Your task to perform on an android device: Turn on the flashlight Image 0: 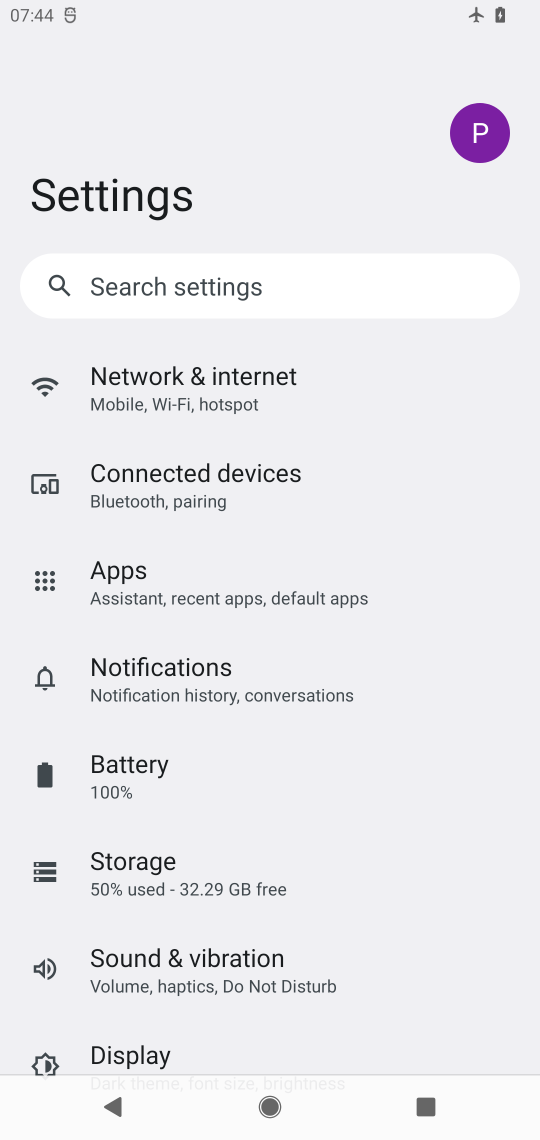
Step 0: press home button
Your task to perform on an android device: Turn on the flashlight Image 1: 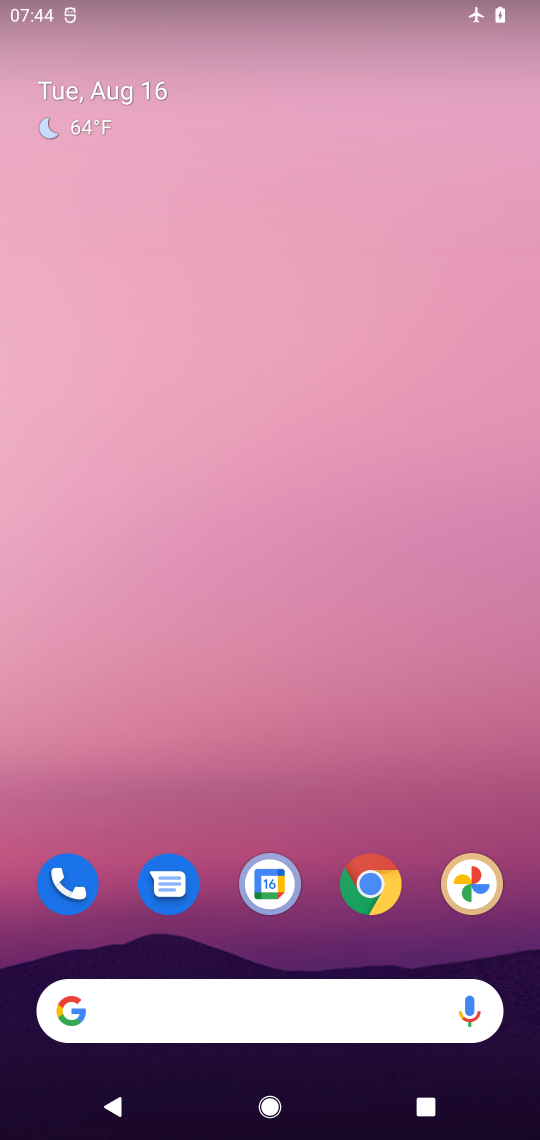
Step 1: drag from (300, 0) to (304, 422)
Your task to perform on an android device: Turn on the flashlight Image 2: 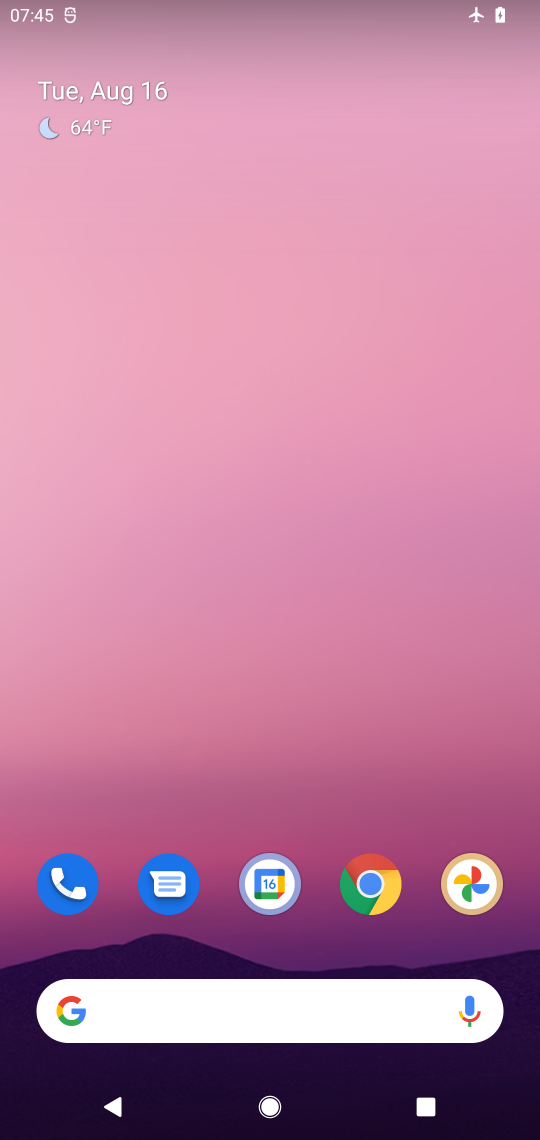
Step 2: drag from (279, 9) to (277, 447)
Your task to perform on an android device: Turn on the flashlight Image 3: 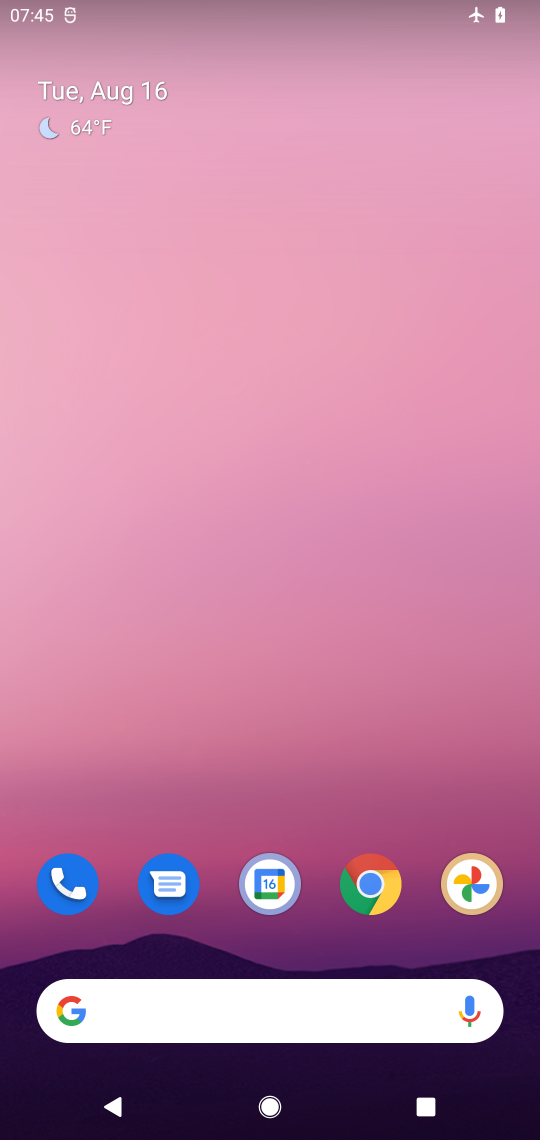
Step 3: drag from (309, 2) to (291, 699)
Your task to perform on an android device: Turn on the flashlight Image 4: 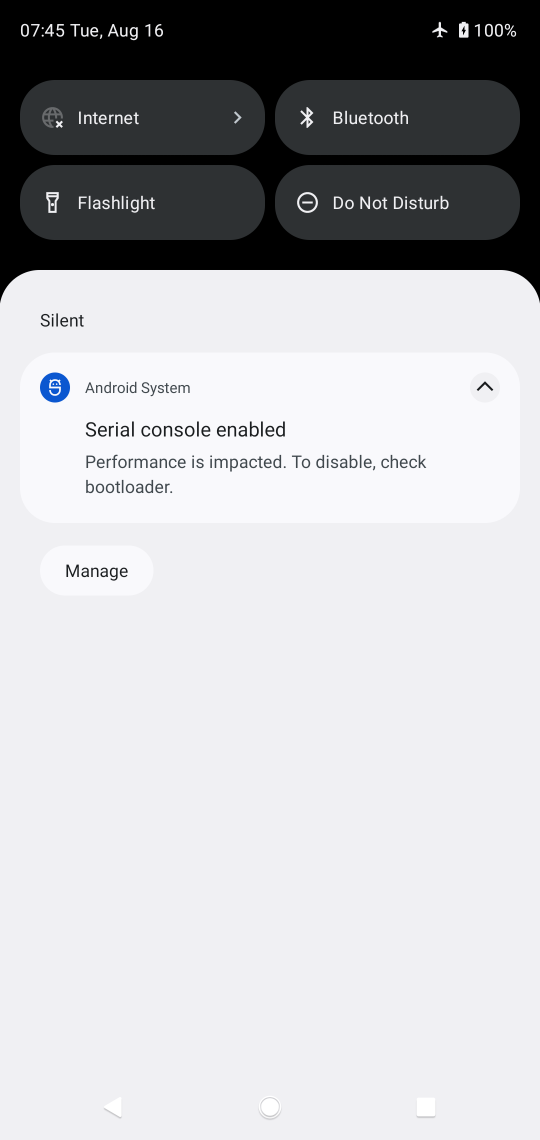
Step 4: click (129, 194)
Your task to perform on an android device: Turn on the flashlight Image 5: 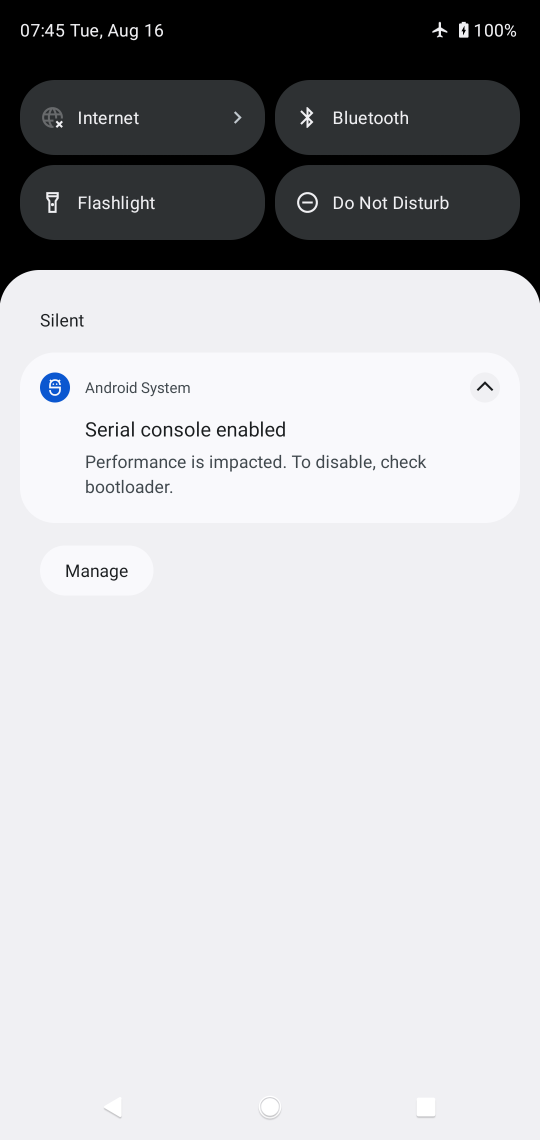
Step 5: task complete